Your task to perform on an android device: change the upload size in google photos Image 0: 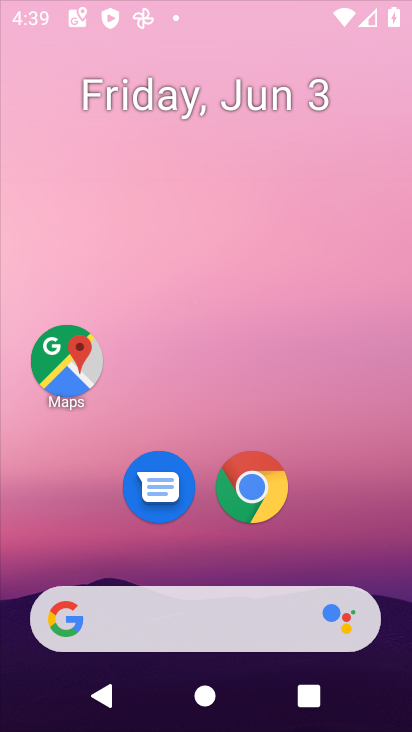
Step 0: click (259, 76)
Your task to perform on an android device: change the upload size in google photos Image 1: 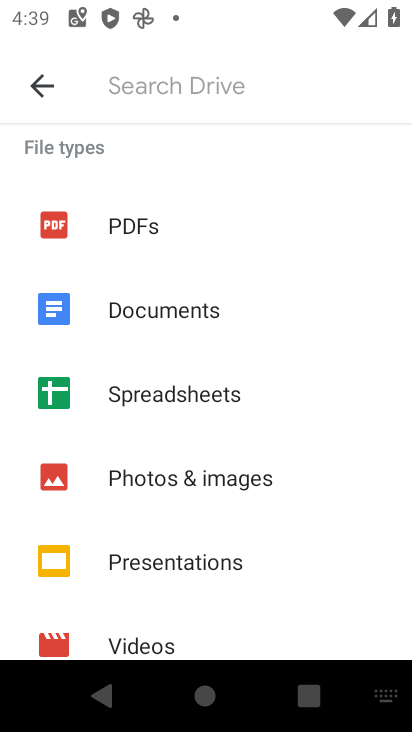
Step 1: press home button
Your task to perform on an android device: change the upload size in google photos Image 2: 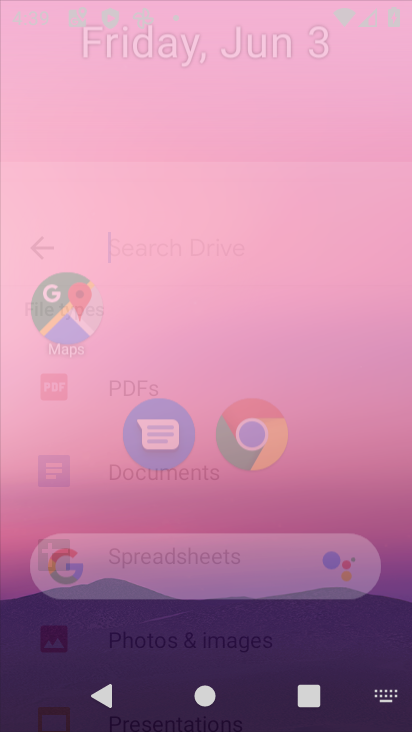
Step 2: drag from (255, 532) to (250, 3)
Your task to perform on an android device: change the upload size in google photos Image 3: 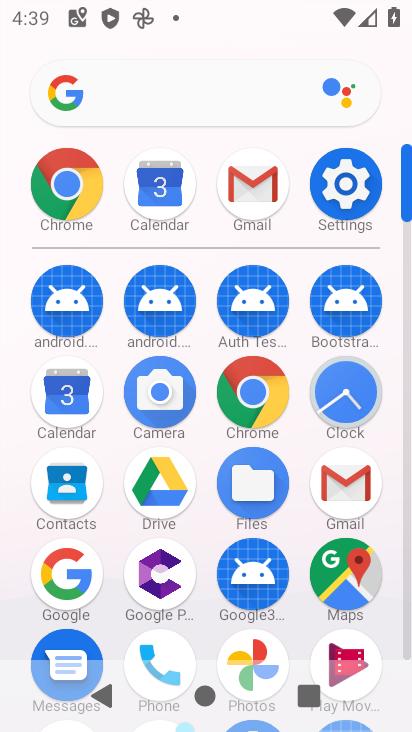
Step 3: drag from (212, 639) to (191, 147)
Your task to perform on an android device: change the upload size in google photos Image 4: 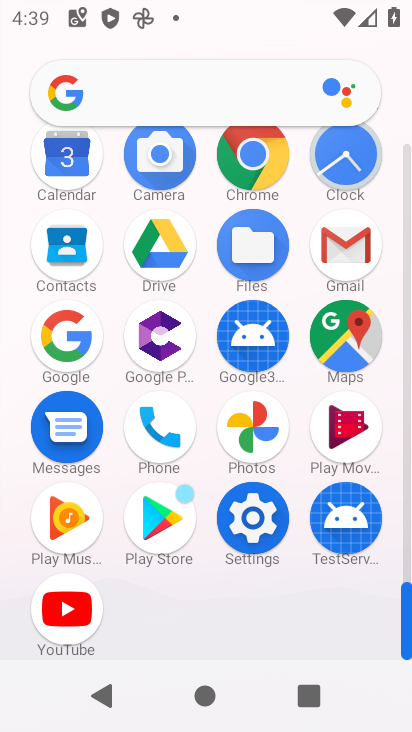
Step 4: click (255, 420)
Your task to perform on an android device: change the upload size in google photos Image 5: 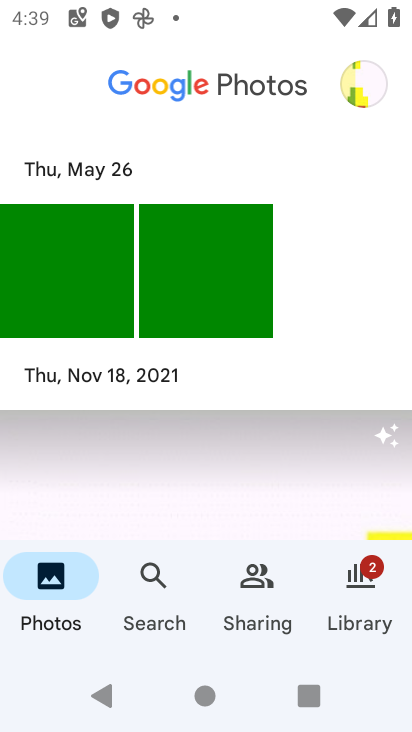
Step 5: drag from (243, 503) to (327, 169)
Your task to perform on an android device: change the upload size in google photos Image 6: 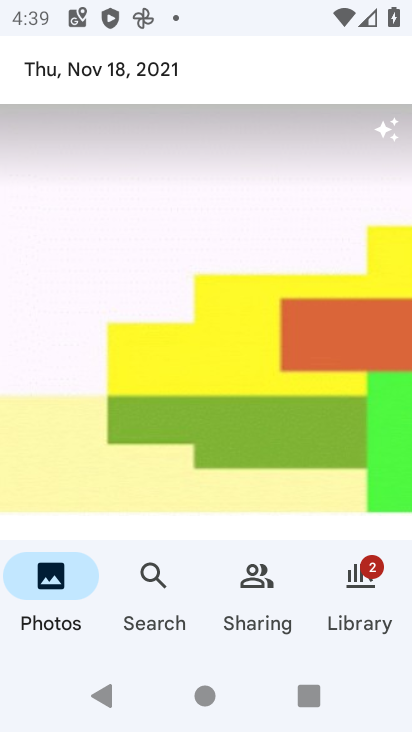
Step 6: click (359, 85)
Your task to perform on an android device: change the upload size in google photos Image 7: 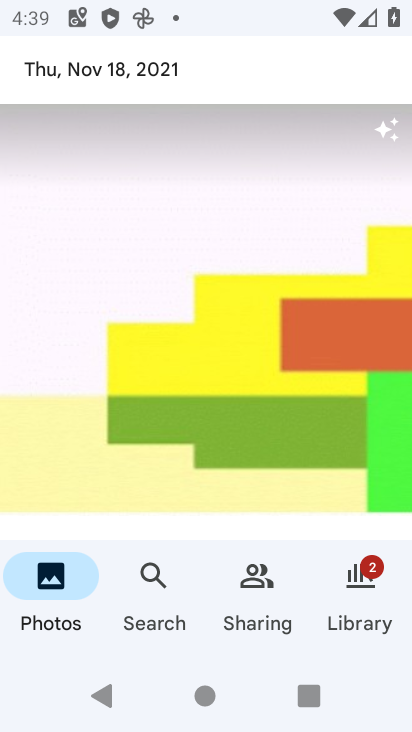
Step 7: drag from (360, 99) to (371, 708)
Your task to perform on an android device: change the upload size in google photos Image 8: 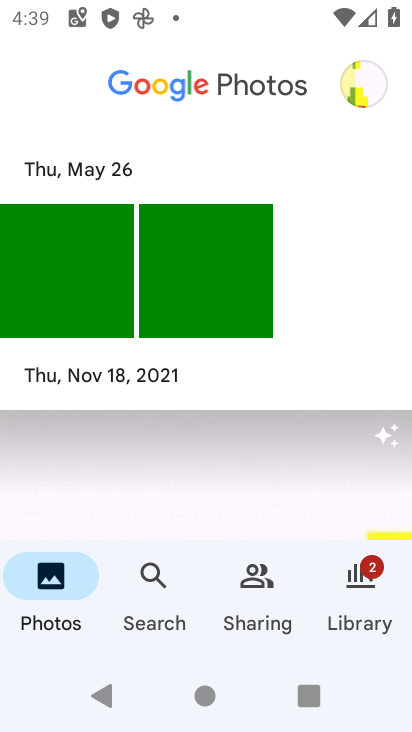
Step 8: click (368, 62)
Your task to perform on an android device: change the upload size in google photos Image 9: 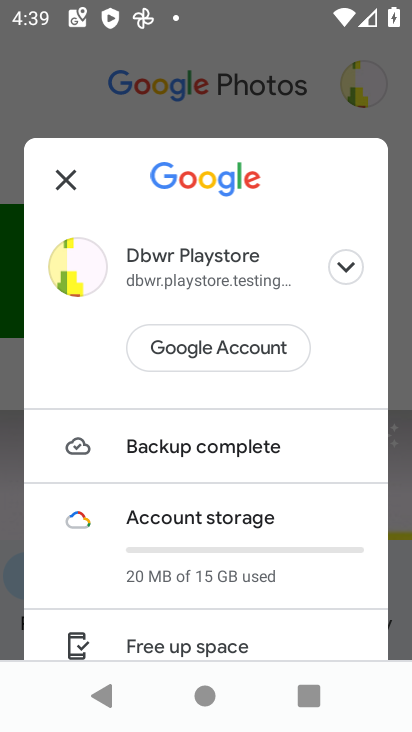
Step 9: drag from (154, 546) to (212, 150)
Your task to perform on an android device: change the upload size in google photos Image 10: 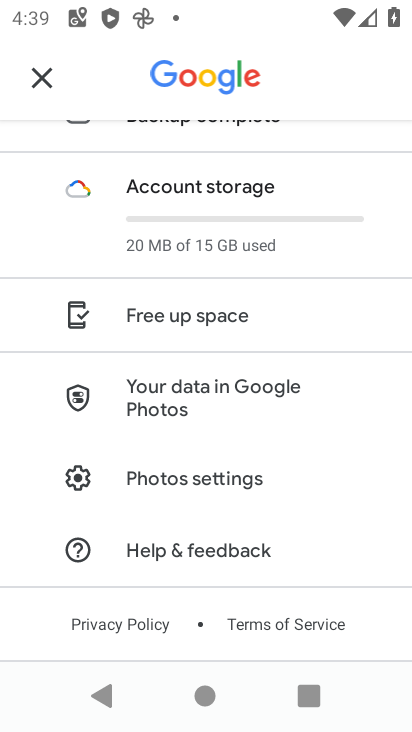
Step 10: drag from (233, 589) to (293, 276)
Your task to perform on an android device: change the upload size in google photos Image 11: 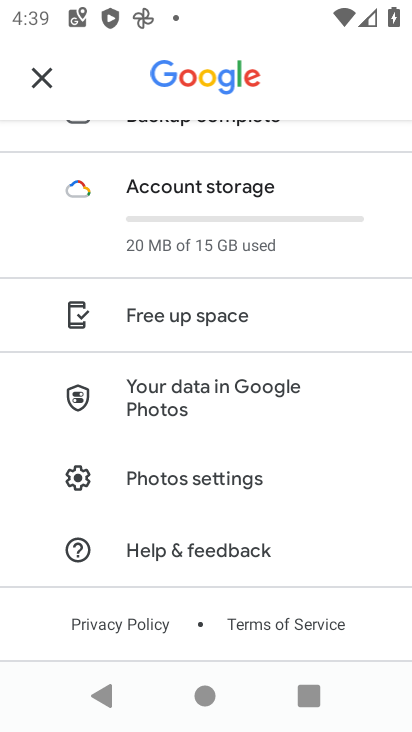
Step 11: click (182, 479)
Your task to perform on an android device: change the upload size in google photos Image 12: 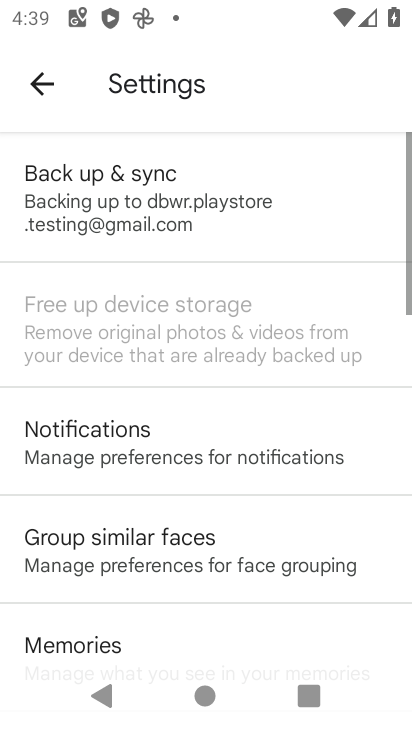
Step 12: drag from (215, 399) to (313, 126)
Your task to perform on an android device: change the upload size in google photos Image 13: 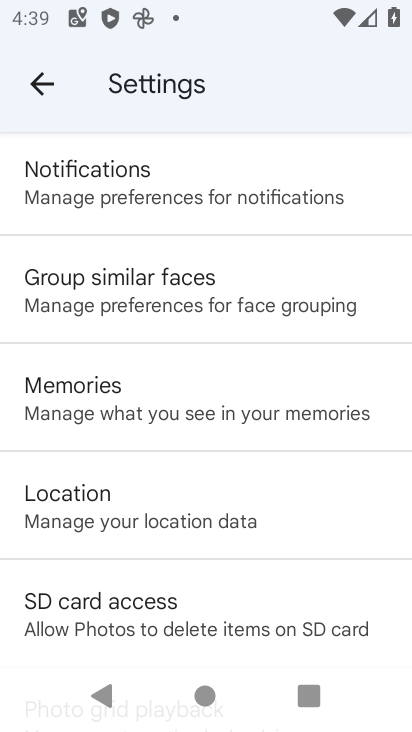
Step 13: drag from (227, 267) to (189, 727)
Your task to perform on an android device: change the upload size in google photos Image 14: 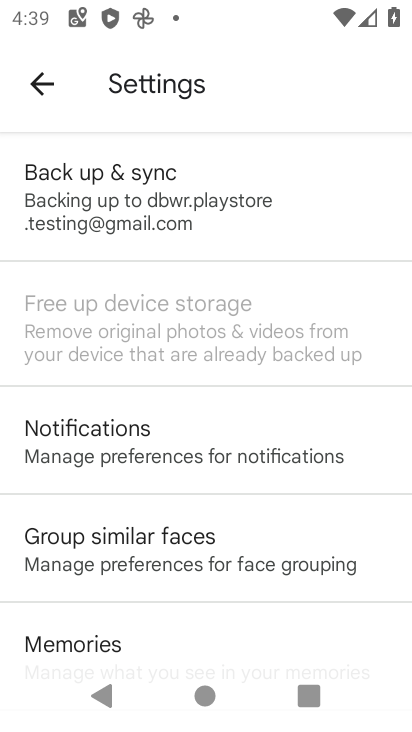
Step 14: click (156, 221)
Your task to perform on an android device: change the upload size in google photos Image 15: 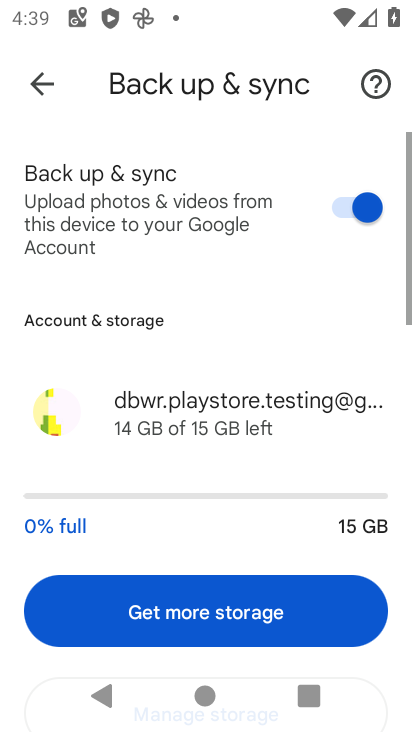
Step 15: drag from (235, 548) to (336, 141)
Your task to perform on an android device: change the upload size in google photos Image 16: 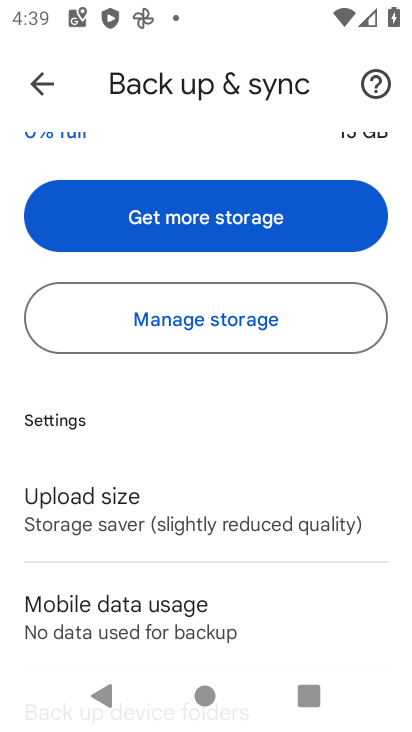
Step 16: click (137, 555)
Your task to perform on an android device: change the upload size in google photos Image 17: 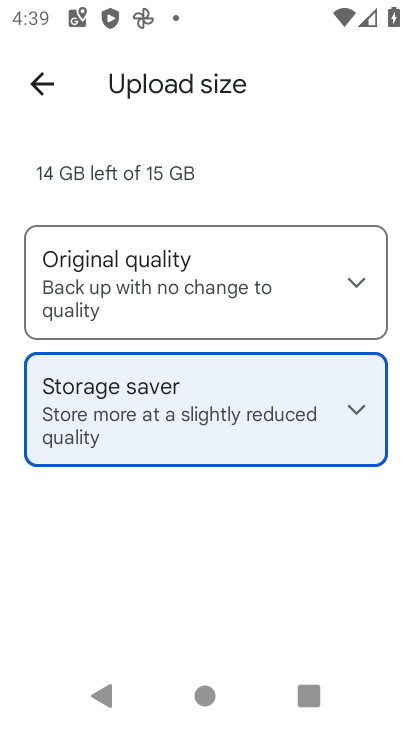
Step 17: drag from (141, 544) to (250, 189)
Your task to perform on an android device: change the upload size in google photos Image 18: 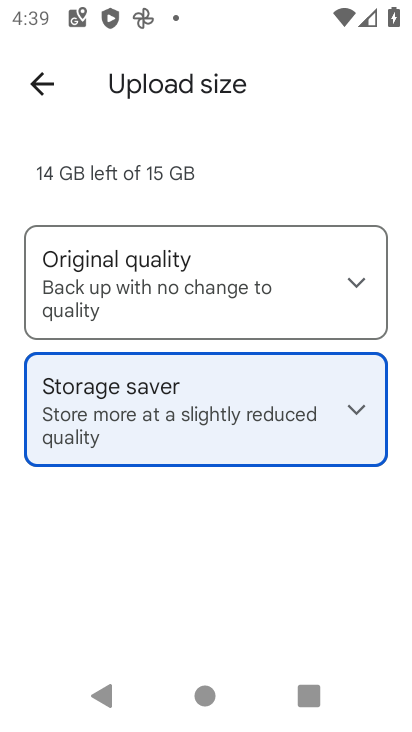
Step 18: click (211, 293)
Your task to perform on an android device: change the upload size in google photos Image 19: 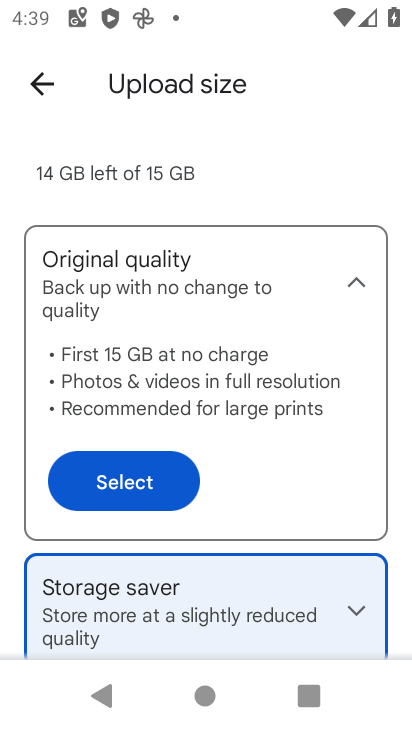
Step 19: click (113, 474)
Your task to perform on an android device: change the upload size in google photos Image 20: 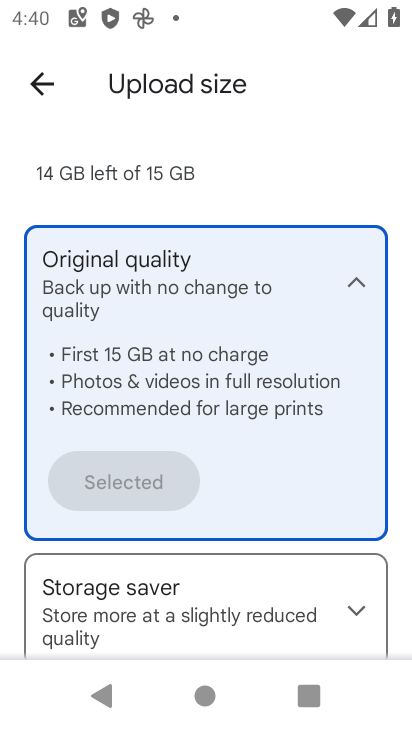
Step 20: task complete